Your task to perform on an android device: check data usage Image 0: 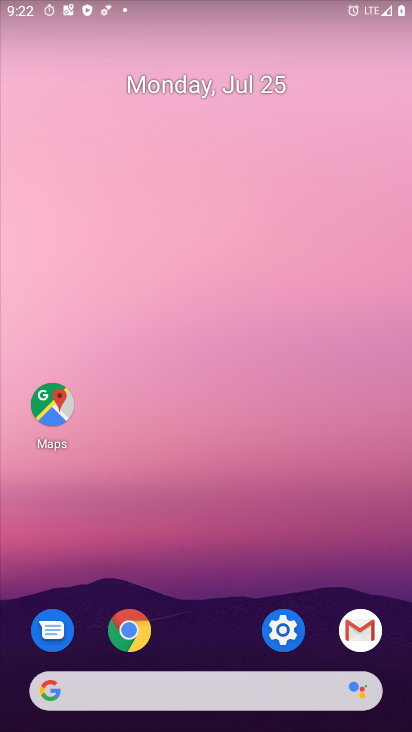
Step 0: click (276, 633)
Your task to perform on an android device: check data usage Image 1: 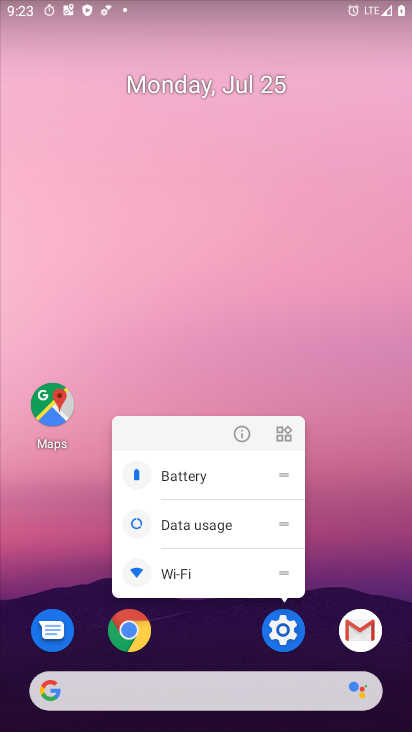
Step 1: click (271, 634)
Your task to perform on an android device: check data usage Image 2: 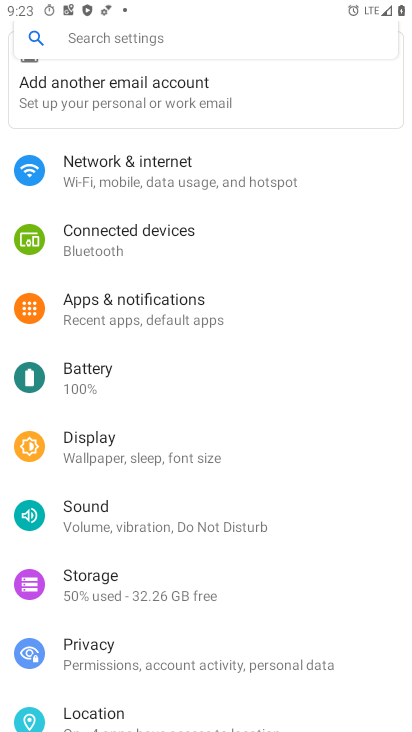
Step 2: click (84, 39)
Your task to perform on an android device: check data usage Image 3: 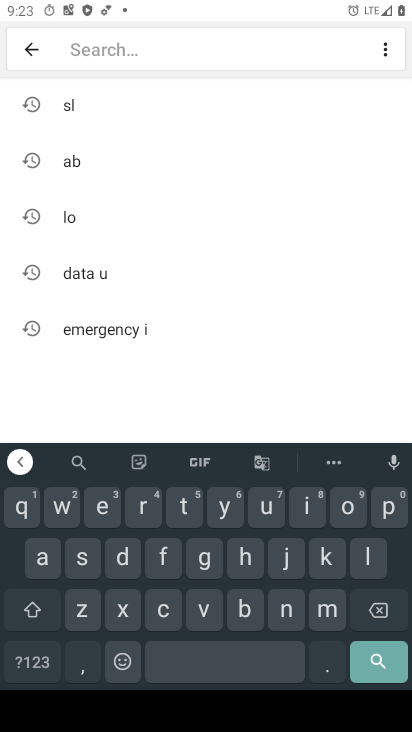
Step 3: click (101, 260)
Your task to perform on an android device: check data usage Image 4: 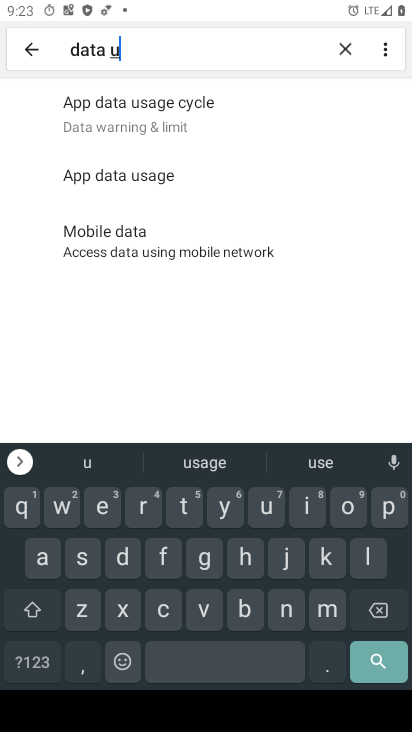
Step 4: click (112, 187)
Your task to perform on an android device: check data usage Image 5: 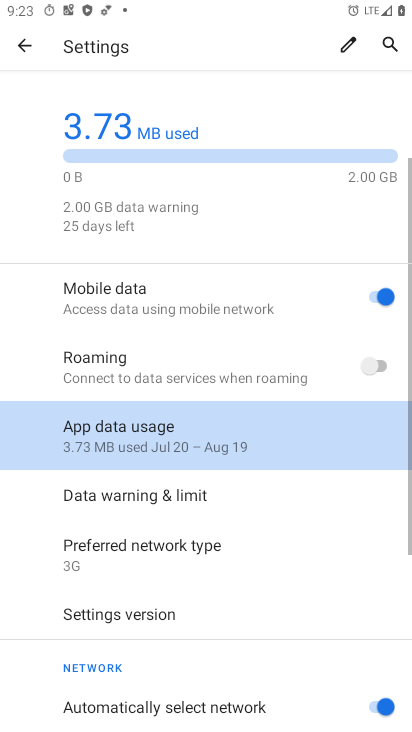
Step 5: click (106, 426)
Your task to perform on an android device: check data usage Image 6: 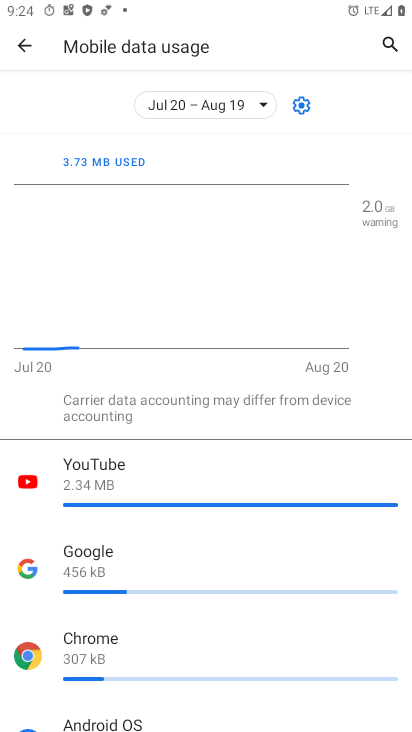
Step 6: task complete